Your task to perform on an android device: toggle improve location accuracy Image 0: 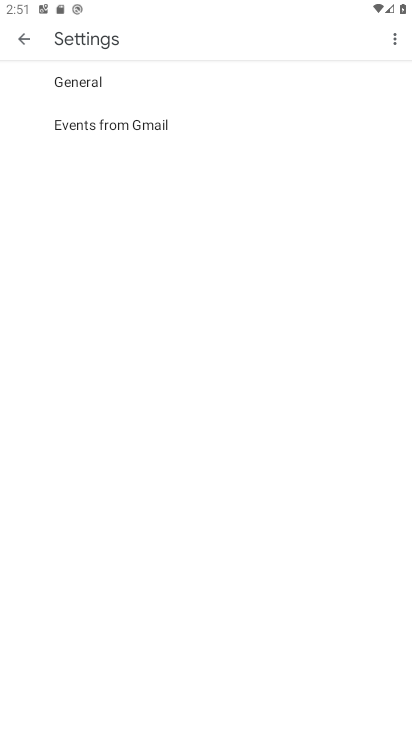
Step 0: press home button
Your task to perform on an android device: toggle improve location accuracy Image 1: 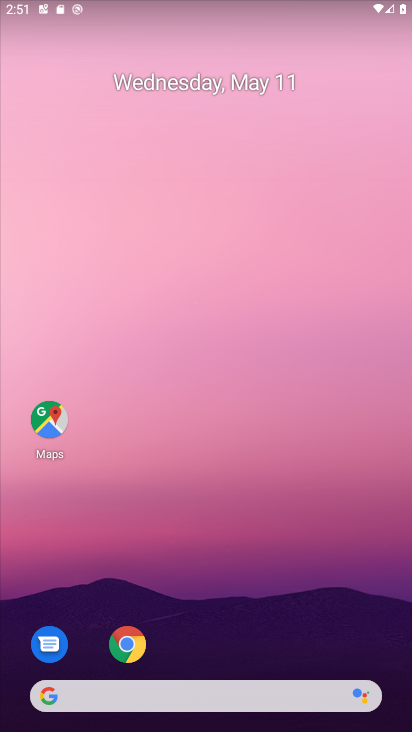
Step 1: drag from (206, 669) to (206, 25)
Your task to perform on an android device: toggle improve location accuracy Image 2: 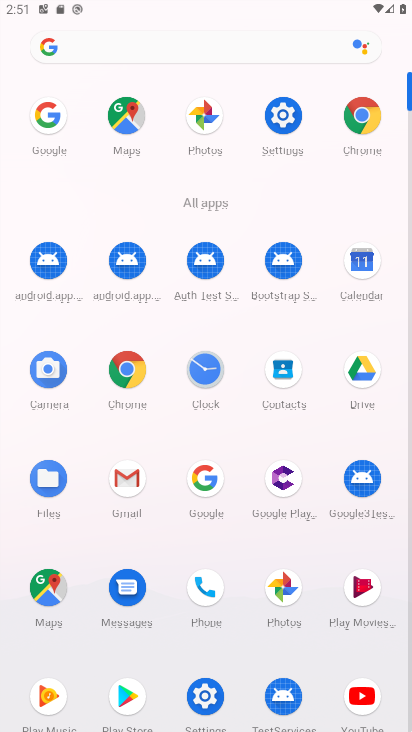
Step 2: click (279, 116)
Your task to perform on an android device: toggle improve location accuracy Image 3: 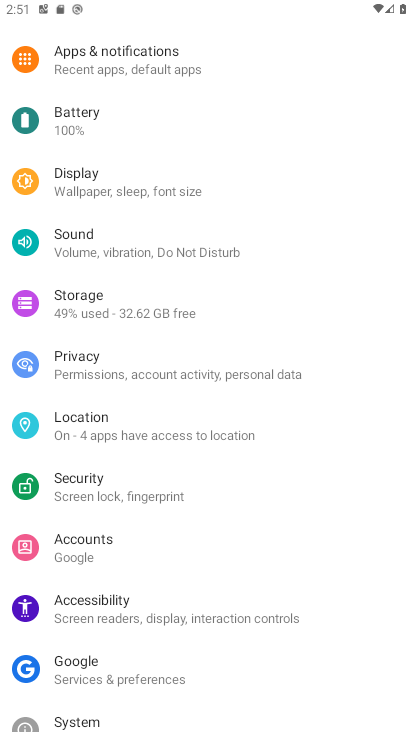
Step 3: click (77, 418)
Your task to perform on an android device: toggle improve location accuracy Image 4: 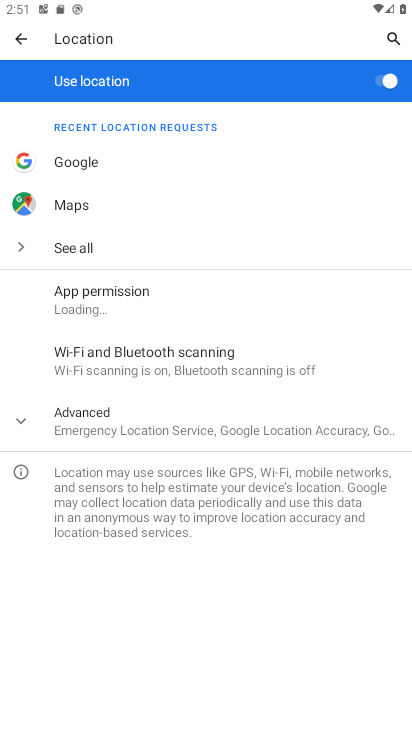
Step 4: click (85, 406)
Your task to perform on an android device: toggle improve location accuracy Image 5: 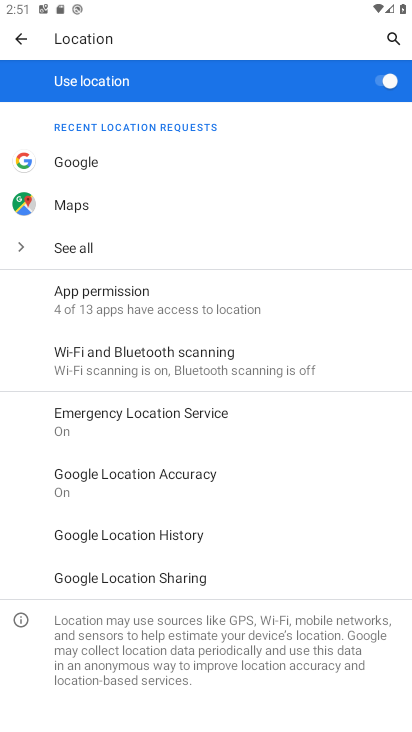
Step 5: click (159, 469)
Your task to perform on an android device: toggle improve location accuracy Image 6: 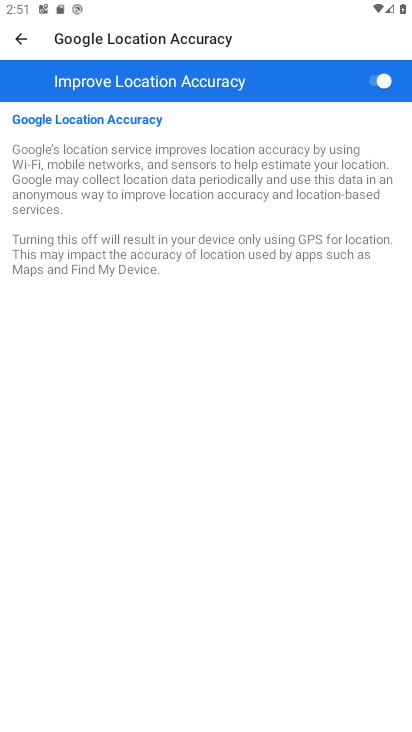
Step 6: click (375, 83)
Your task to perform on an android device: toggle improve location accuracy Image 7: 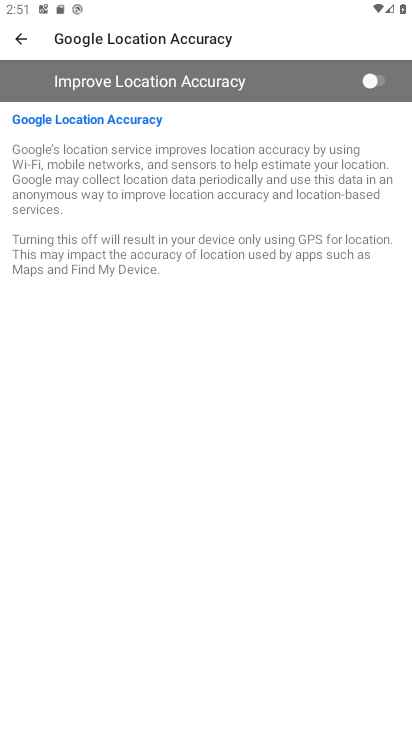
Step 7: task complete